Your task to perform on an android device: create a new album in the google photos Image 0: 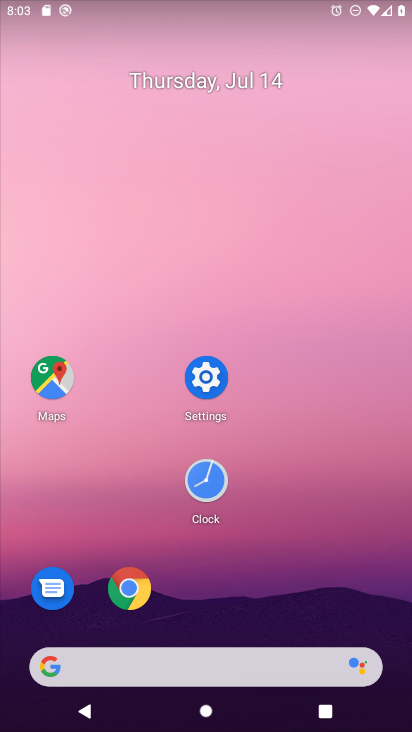
Step 0: drag from (389, 708) to (354, 198)
Your task to perform on an android device: create a new album in the google photos Image 1: 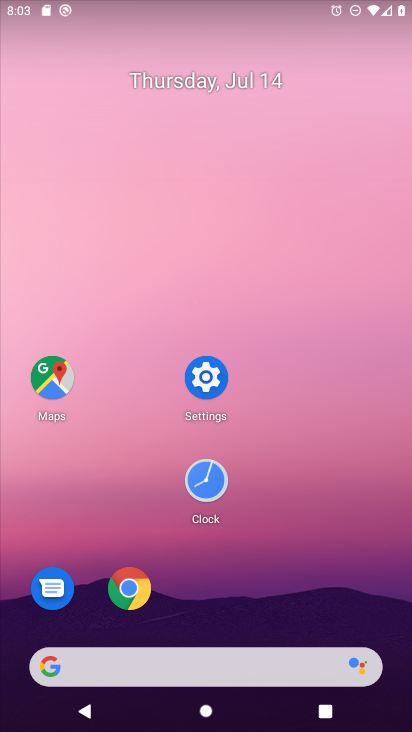
Step 1: drag from (398, 694) to (328, 68)
Your task to perform on an android device: create a new album in the google photos Image 2: 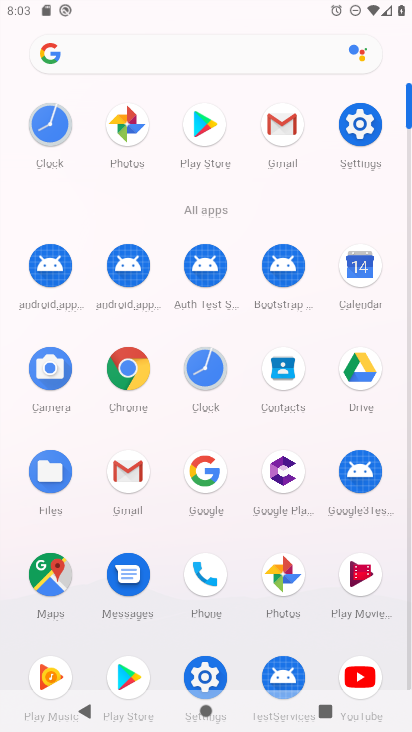
Step 2: click (280, 581)
Your task to perform on an android device: create a new album in the google photos Image 3: 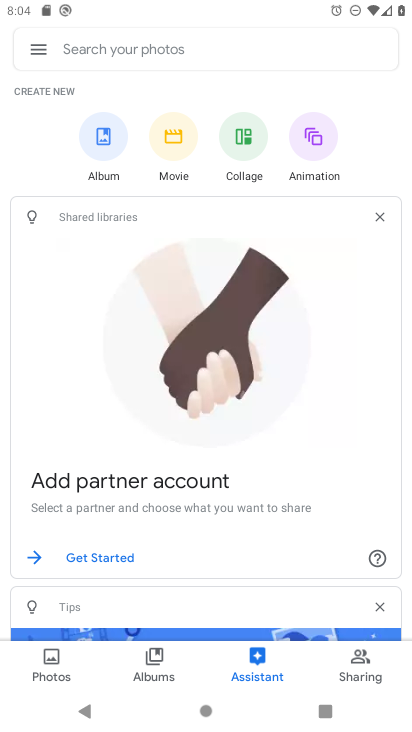
Step 3: click (139, 671)
Your task to perform on an android device: create a new album in the google photos Image 4: 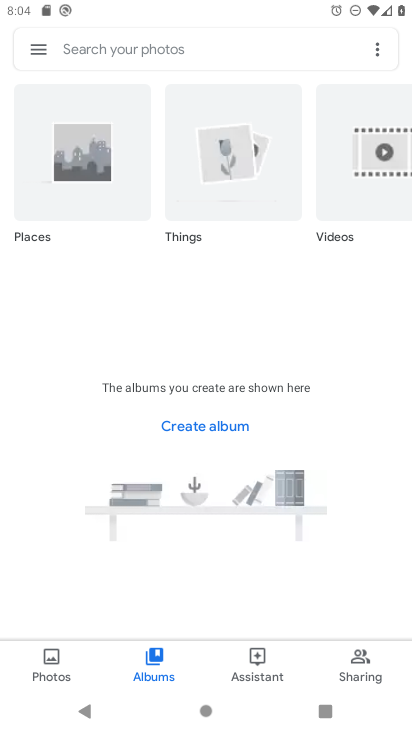
Step 4: click (27, 666)
Your task to perform on an android device: create a new album in the google photos Image 5: 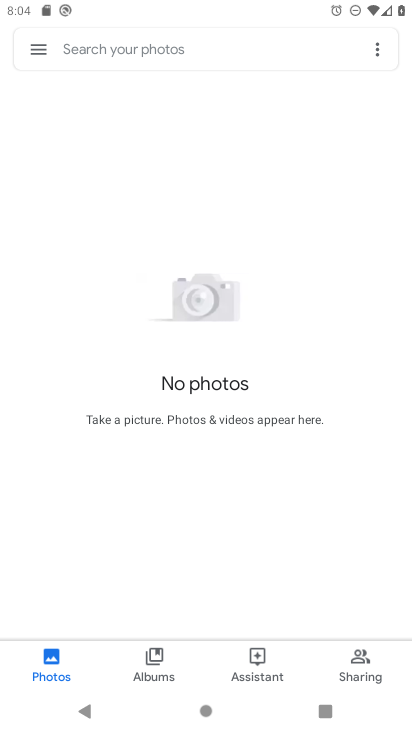
Step 5: click (378, 45)
Your task to perform on an android device: create a new album in the google photos Image 6: 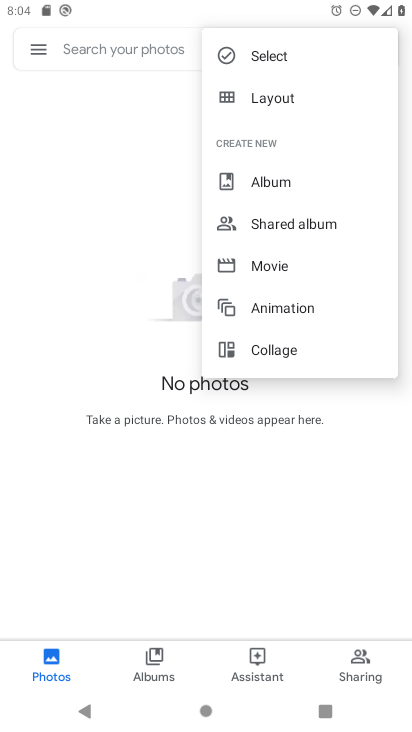
Step 6: click (262, 179)
Your task to perform on an android device: create a new album in the google photos Image 7: 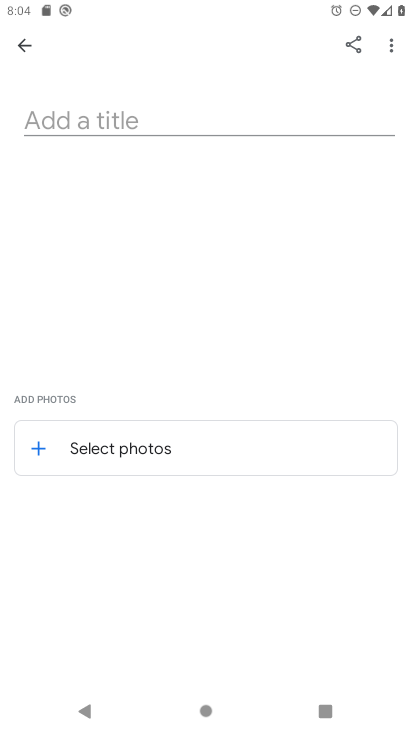
Step 7: click (136, 446)
Your task to perform on an android device: create a new album in the google photos Image 8: 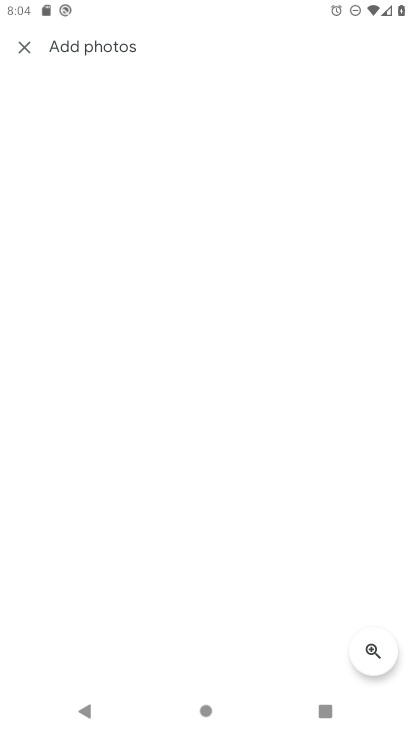
Step 8: task complete